Your task to perform on an android device: Open Chrome and go to settings Image 0: 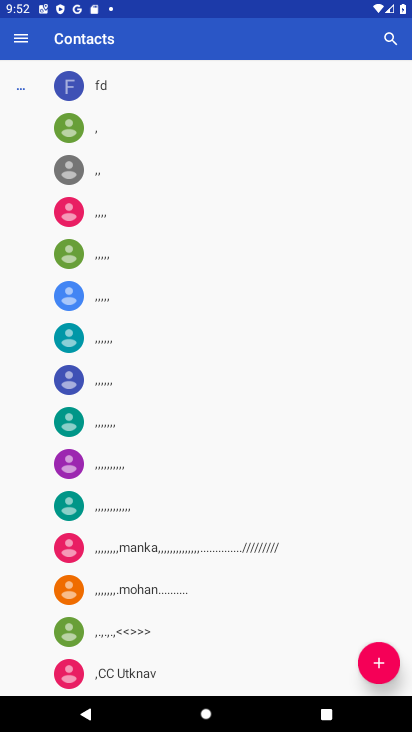
Step 0: press home button
Your task to perform on an android device: Open Chrome and go to settings Image 1: 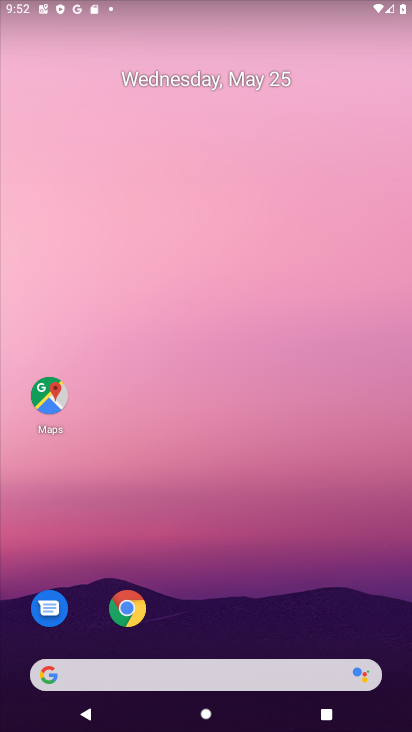
Step 1: drag from (254, 603) to (280, 690)
Your task to perform on an android device: Open Chrome and go to settings Image 2: 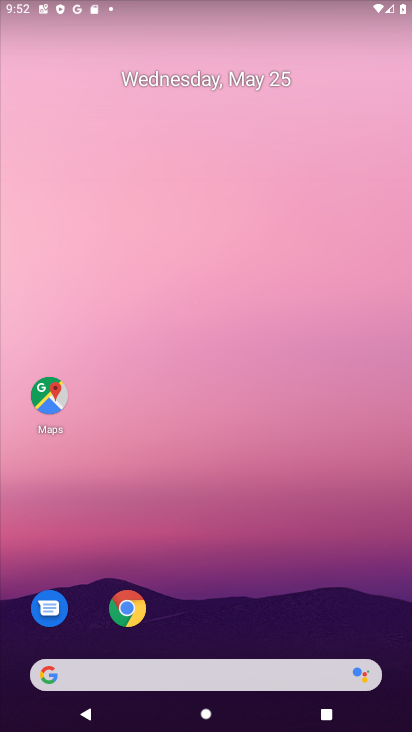
Step 2: click (126, 614)
Your task to perform on an android device: Open Chrome and go to settings Image 3: 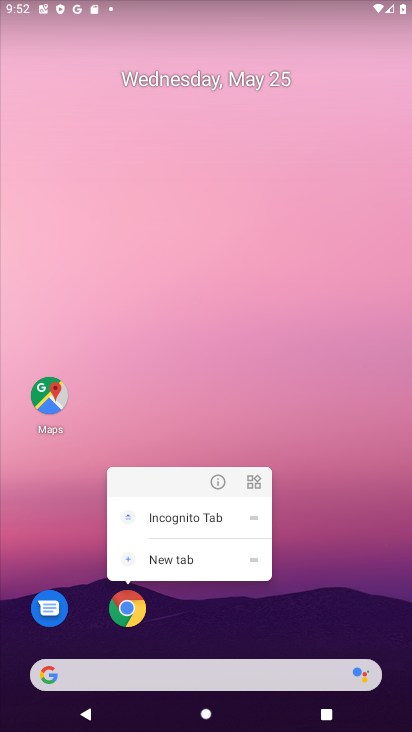
Step 3: click (126, 613)
Your task to perform on an android device: Open Chrome and go to settings Image 4: 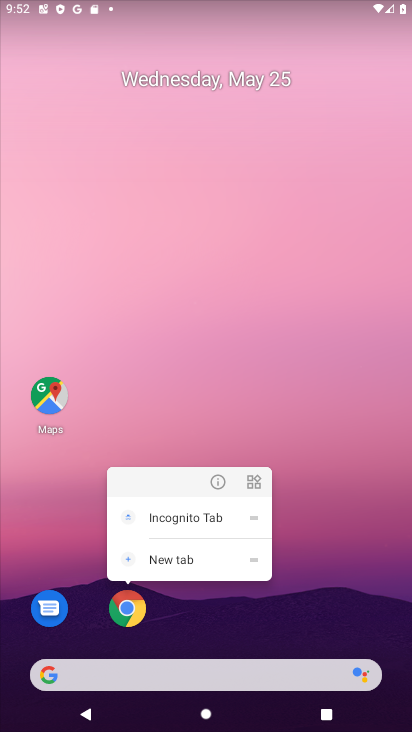
Step 4: click (126, 613)
Your task to perform on an android device: Open Chrome and go to settings Image 5: 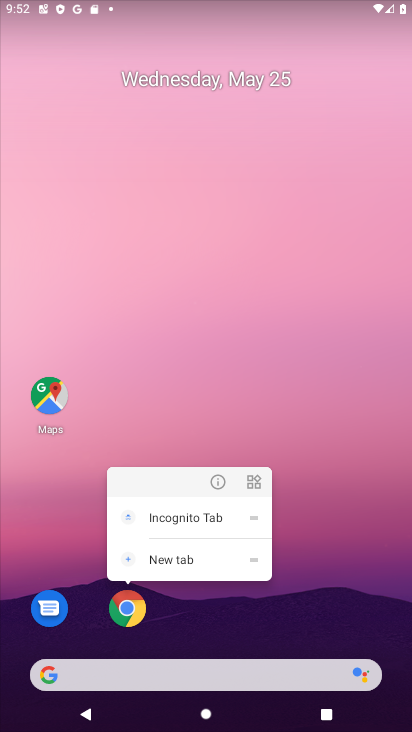
Step 5: click (126, 613)
Your task to perform on an android device: Open Chrome and go to settings Image 6: 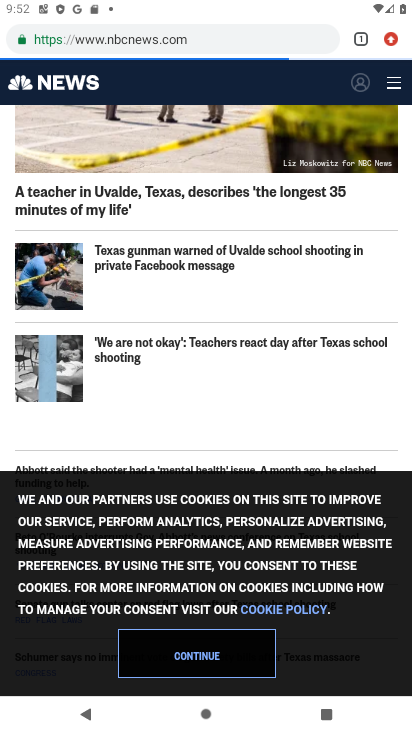
Step 6: click (393, 34)
Your task to perform on an android device: Open Chrome and go to settings Image 7: 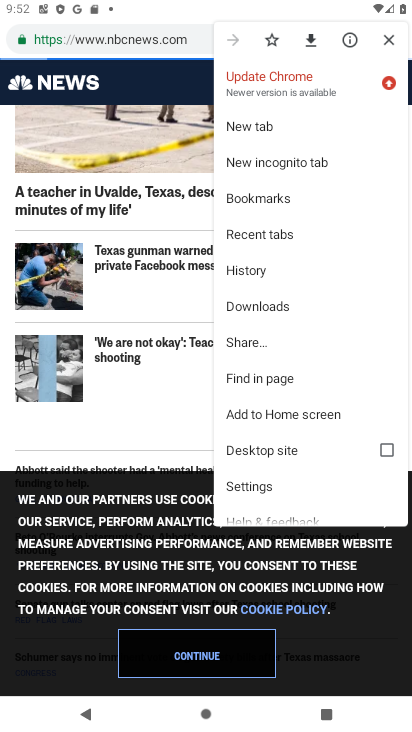
Step 7: click (254, 488)
Your task to perform on an android device: Open Chrome and go to settings Image 8: 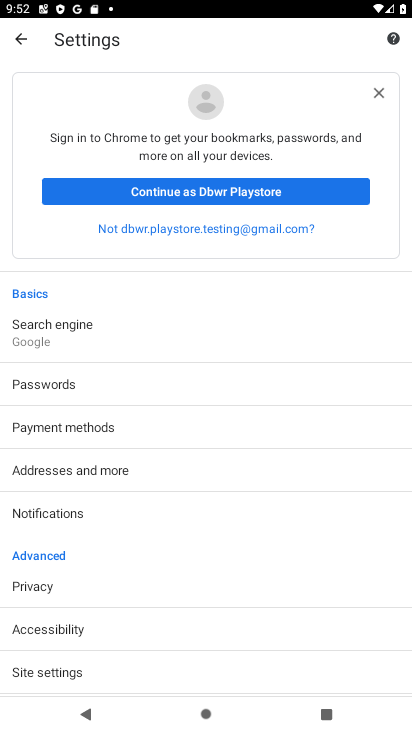
Step 8: task complete